Your task to perform on an android device: Open maps Image 0: 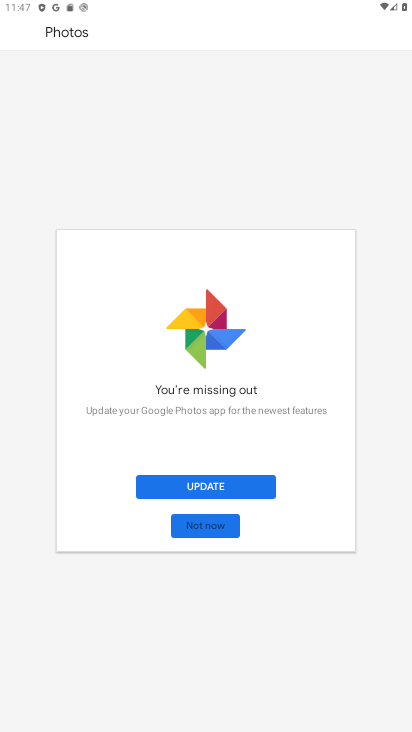
Step 0: press home button
Your task to perform on an android device: Open maps Image 1: 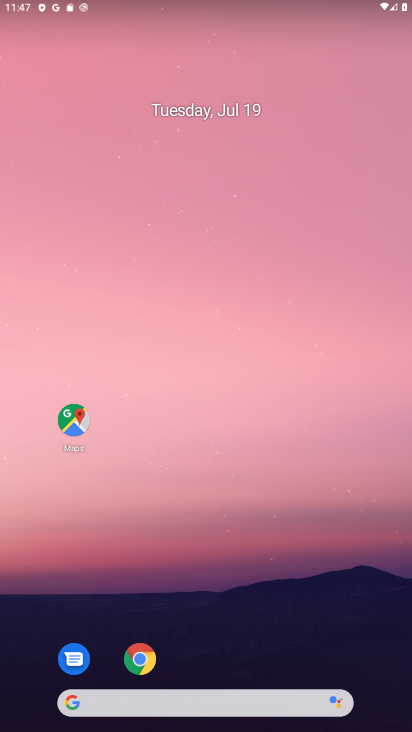
Step 1: click (73, 414)
Your task to perform on an android device: Open maps Image 2: 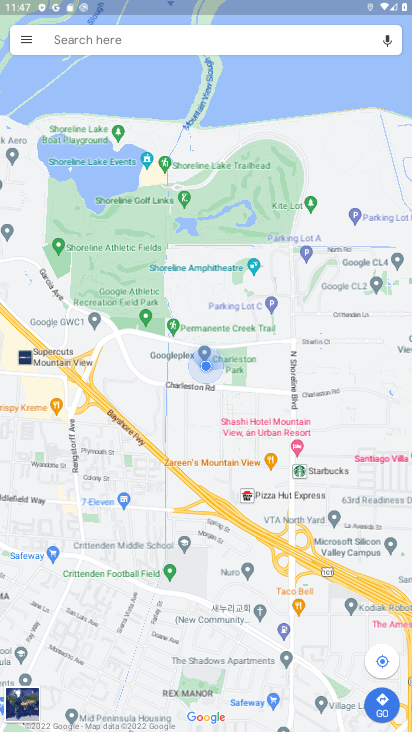
Step 2: task complete